Your task to perform on an android device: Open settings on Google Maps Image 0: 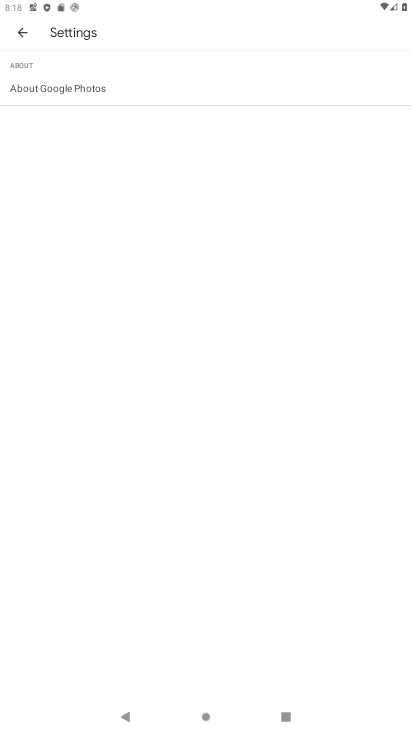
Step 0: press home button
Your task to perform on an android device: Open settings on Google Maps Image 1: 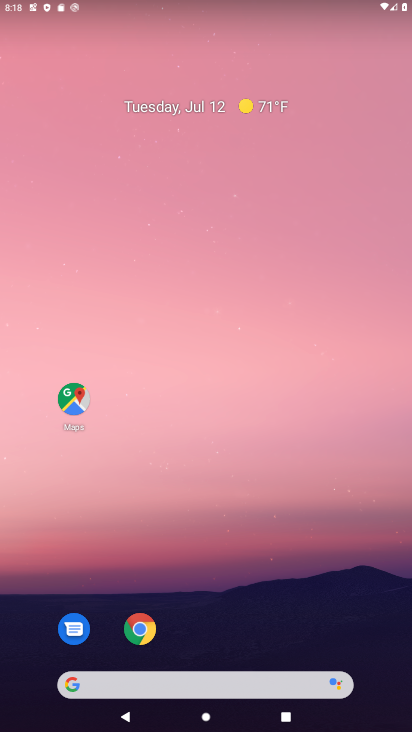
Step 1: click (78, 390)
Your task to perform on an android device: Open settings on Google Maps Image 2: 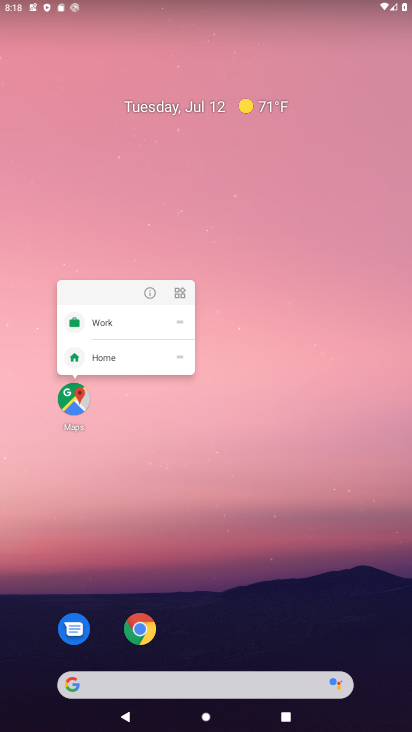
Step 2: click (77, 396)
Your task to perform on an android device: Open settings on Google Maps Image 3: 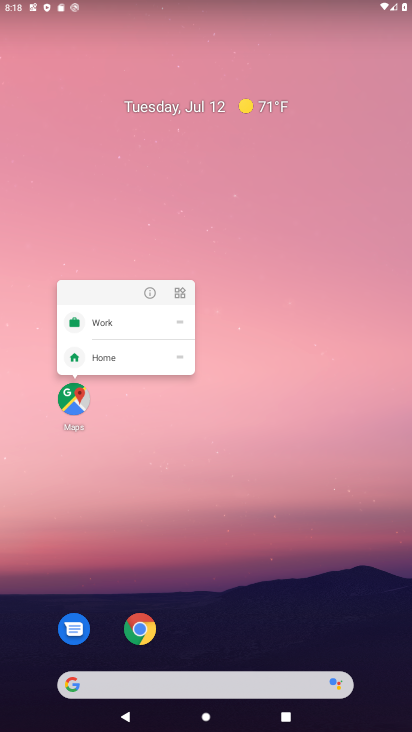
Step 3: click (77, 396)
Your task to perform on an android device: Open settings on Google Maps Image 4: 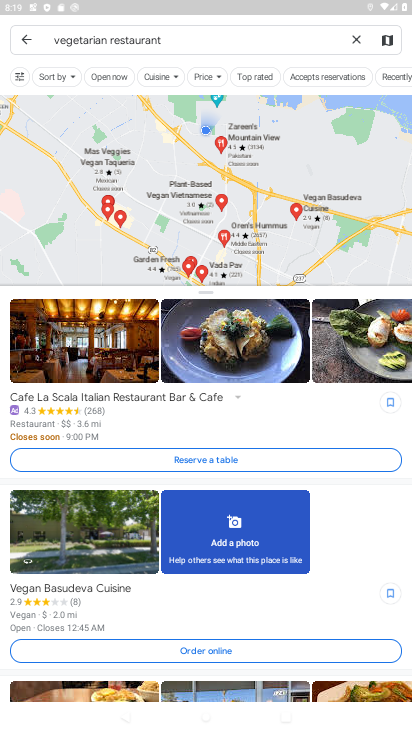
Step 4: click (26, 38)
Your task to perform on an android device: Open settings on Google Maps Image 5: 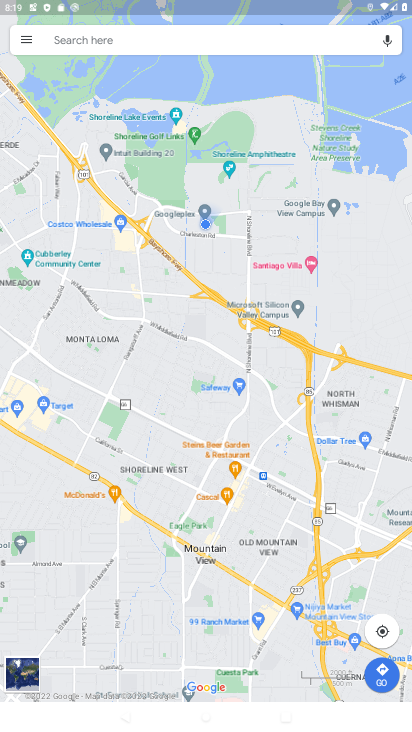
Step 5: click (22, 41)
Your task to perform on an android device: Open settings on Google Maps Image 6: 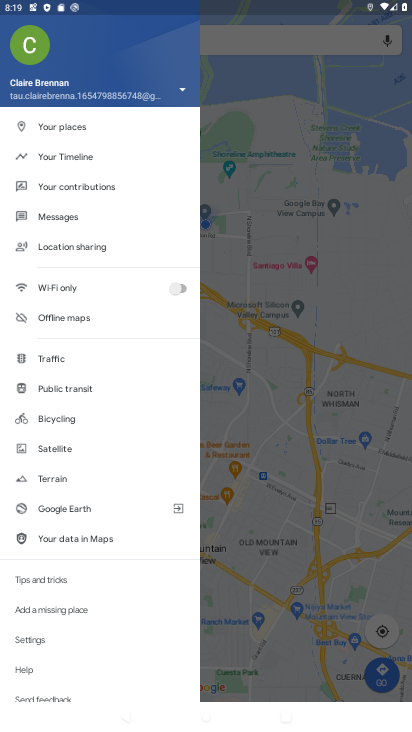
Step 6: click (32, 638)
Your task to perform on an android device: Open settings on Google Maps Image 7: 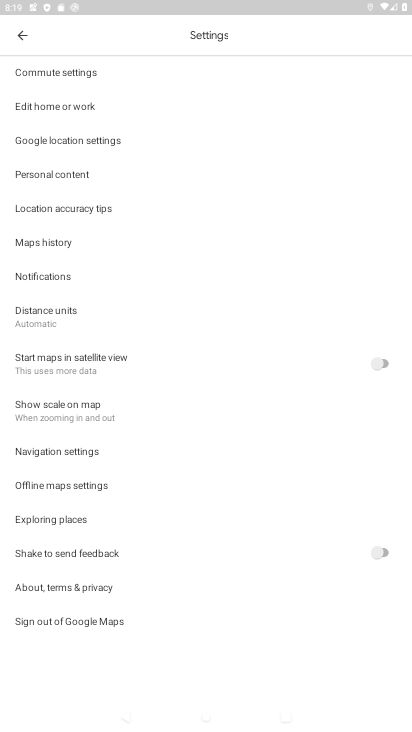
Step 7: task complete